Your task to perform on an android device: install app "DoorDash - Food Delivery" Image 0: 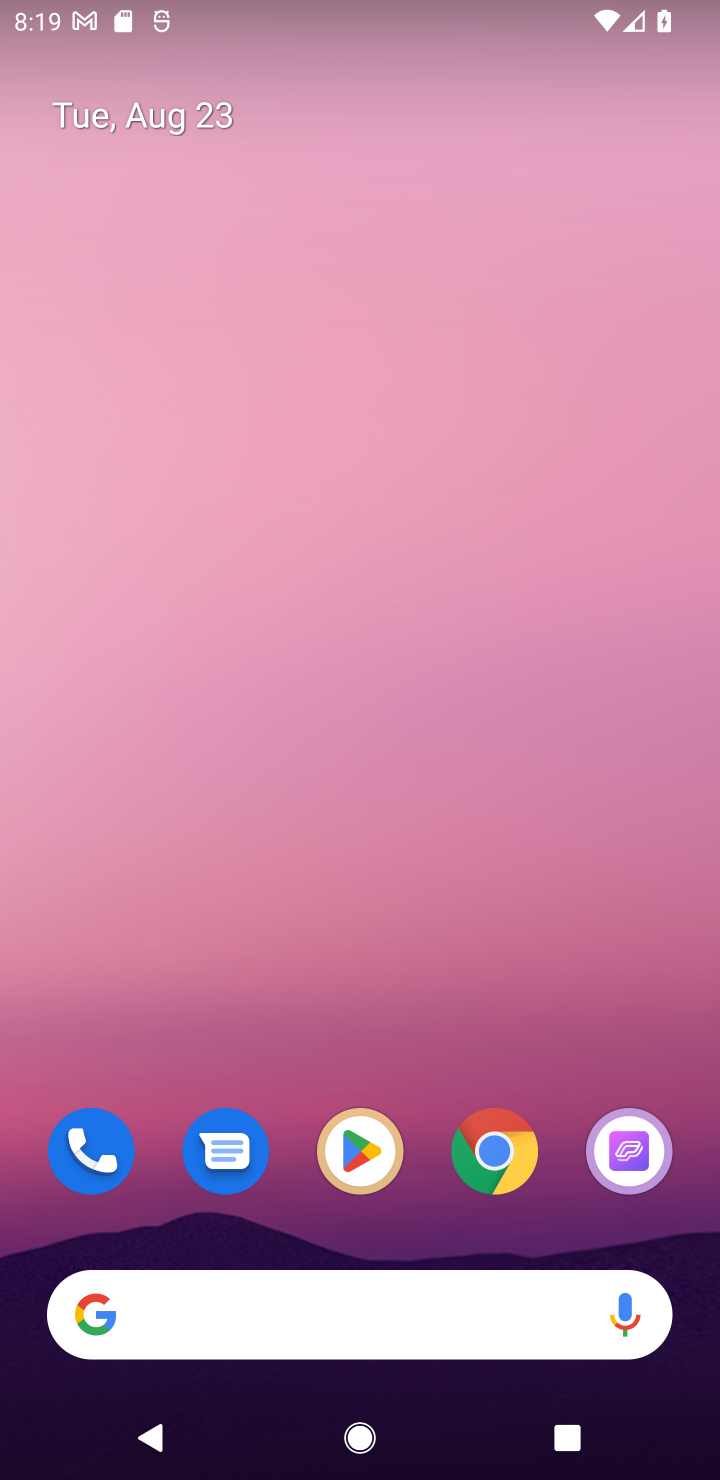
Step 0: click (358, 1154)
Your task to perform on an android device: install app "DoorDash - Food Delivery" Image 1: 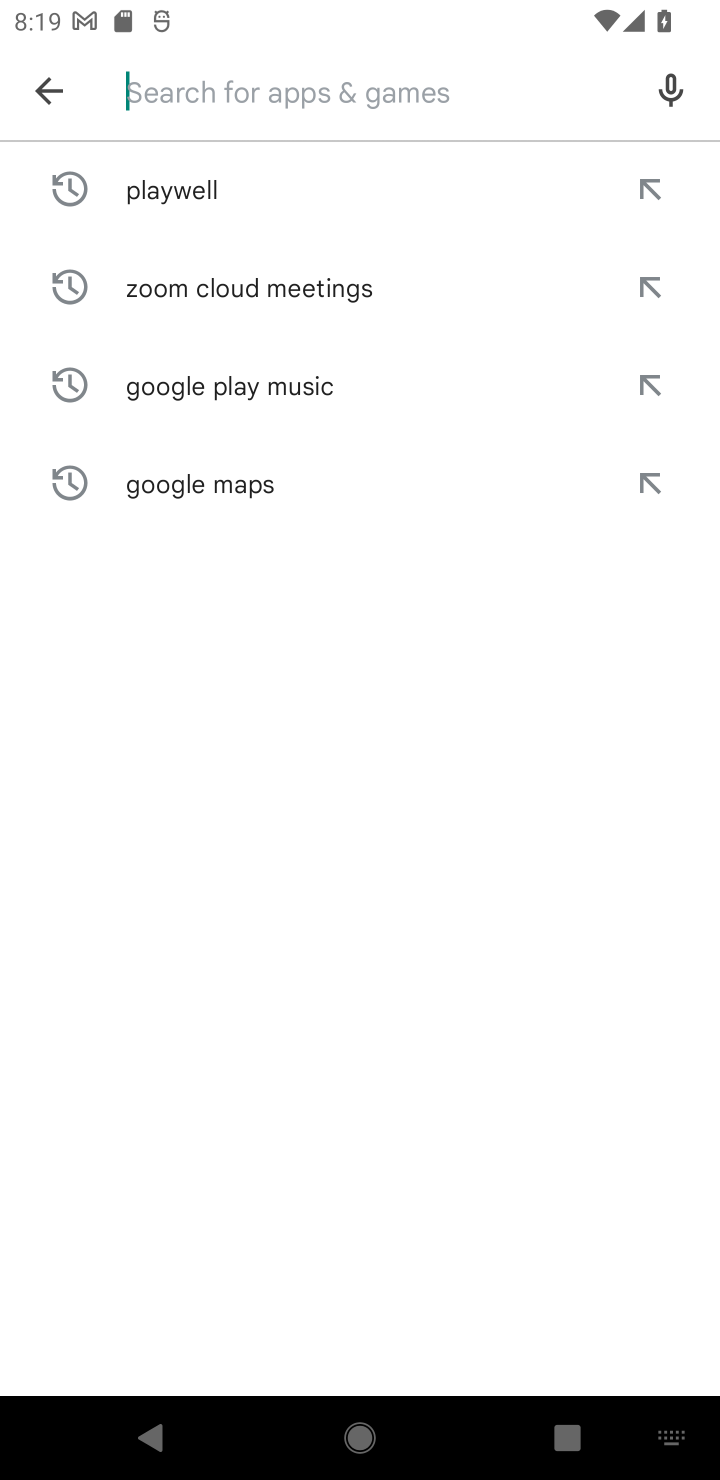
Step 1: type "DoorDash - Food Delivery"
Your task to perform on an android device: install app "DoorDash - Food Delivery" Image 2: 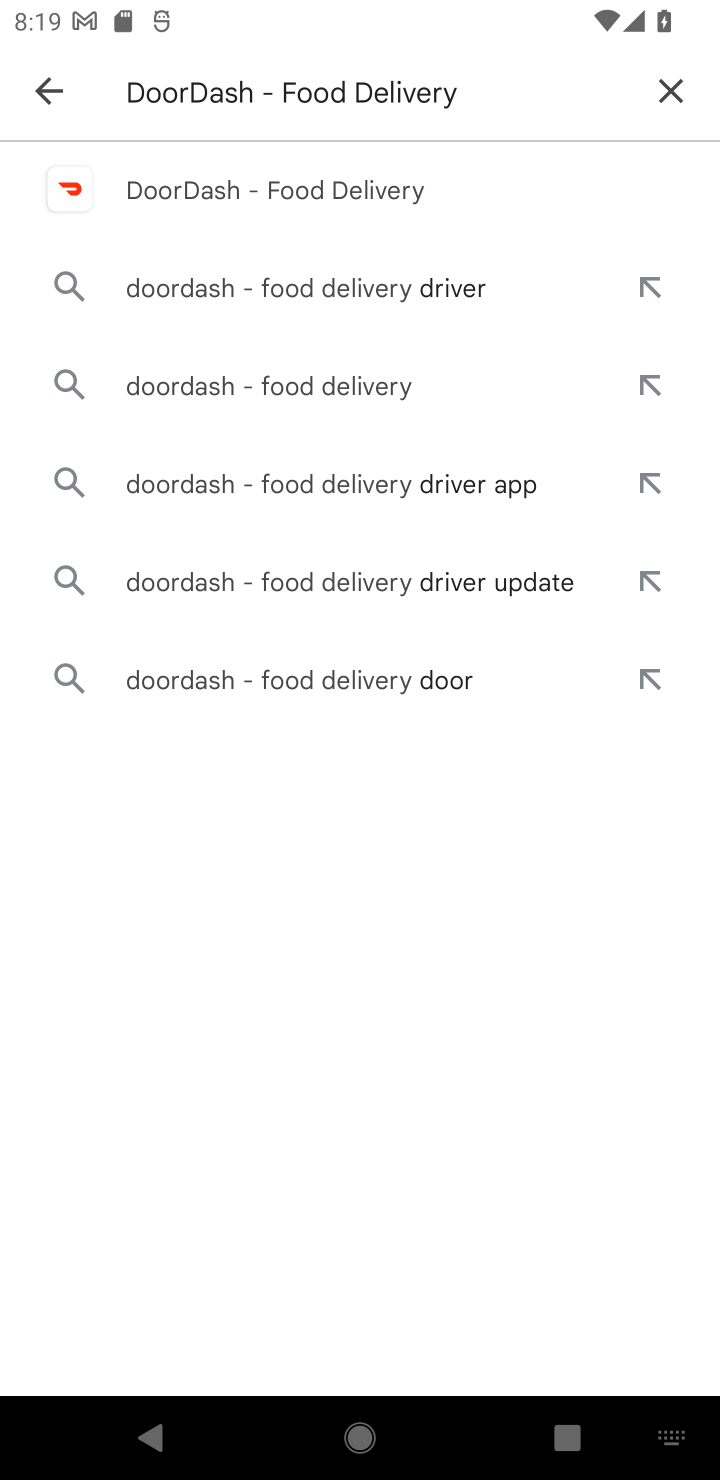
Step 2: click (179, 191)
Your task to perform on an android device: install app "DoorDash - Food Delivery" Image 3: 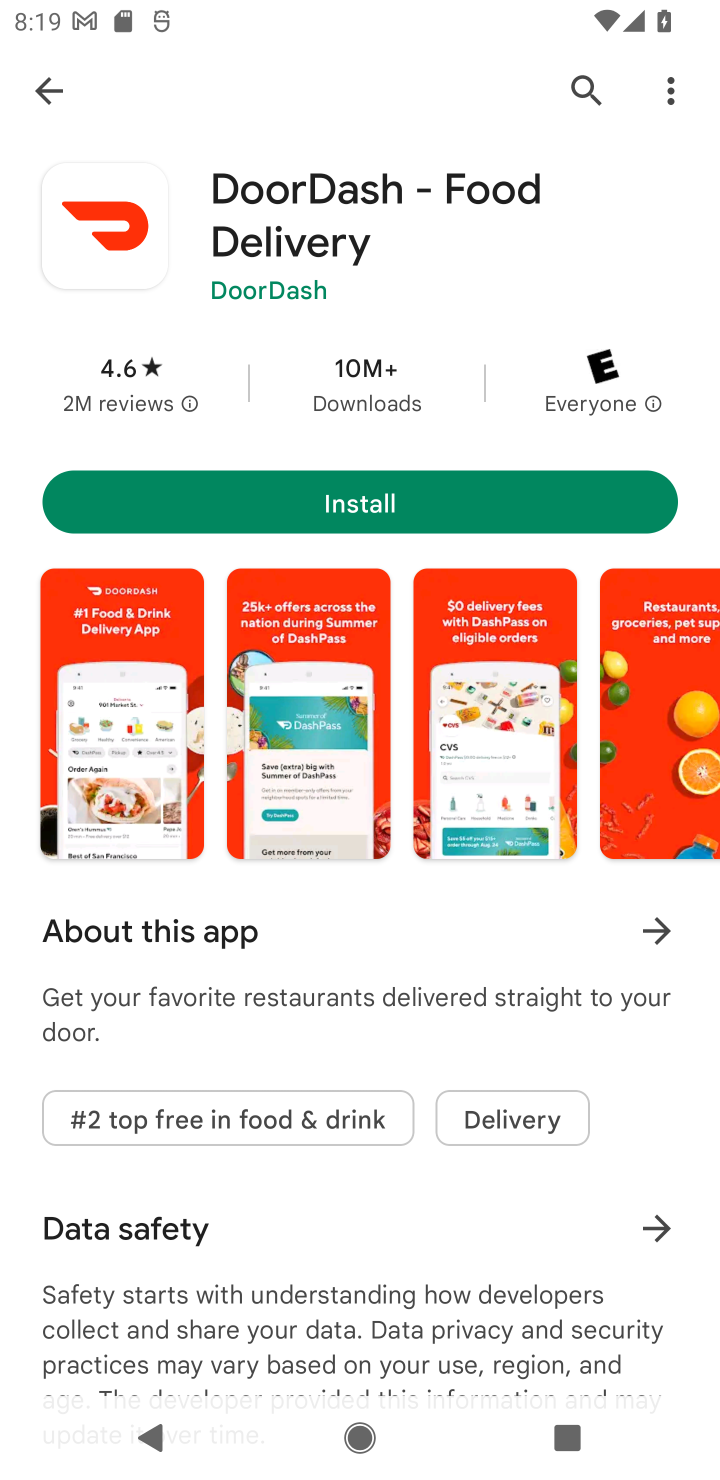
Step 3: click (346, 514)
Your task to perform on an android device: install app "DoorDash - Food Delivery" Image 4: 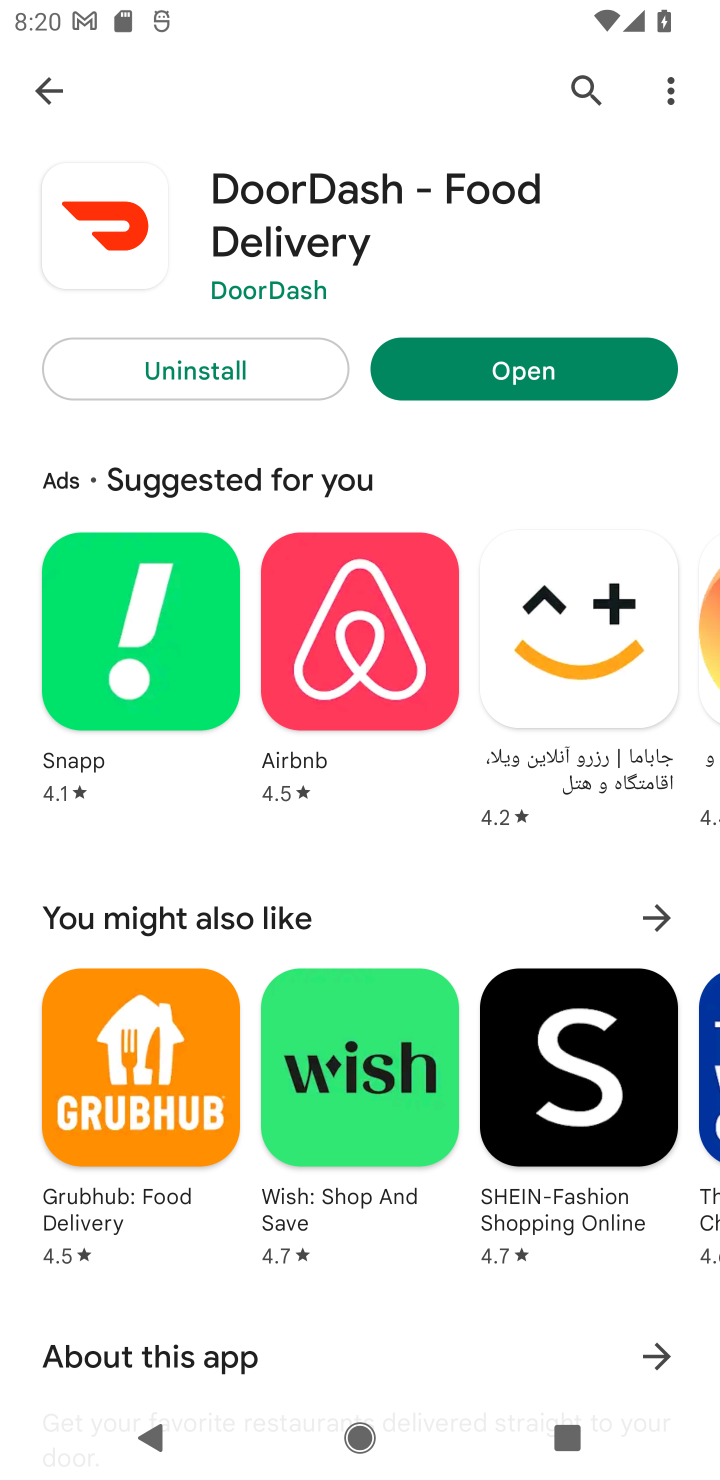
Step 4: click (472, 360)
Your task to perform on an android device: install app "DoorDash - Food Delivery" Image 5: 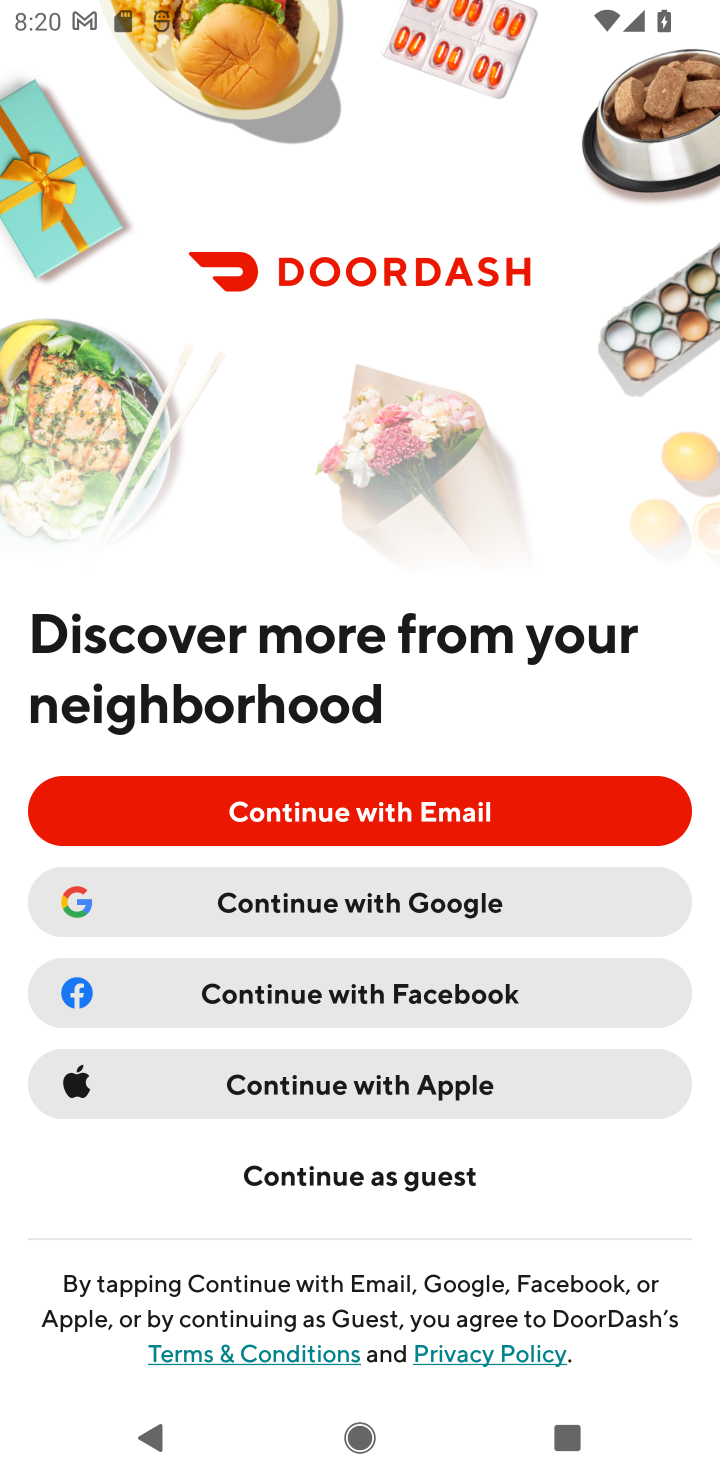
Step 5: task complete